Your task to perform on an android device: empty trash in the gmail app Image 0: 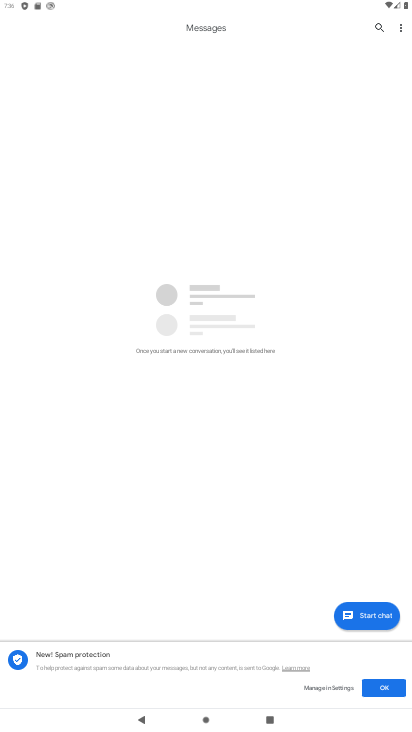
Step 0: press home button
Your task to perform on an android device: empty trash in the gmail app Image 1: 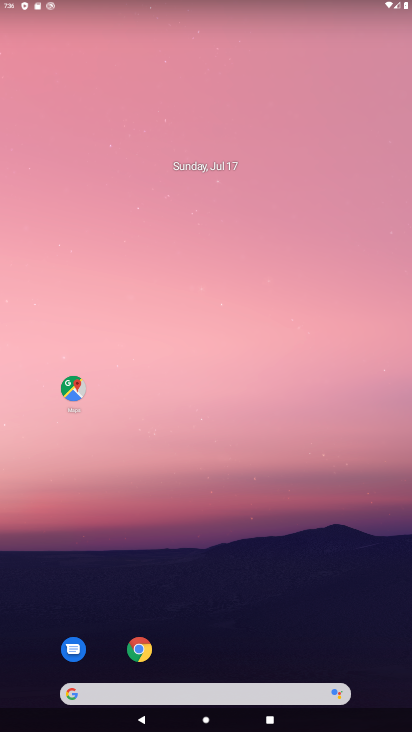
Step 1: drag from (323, 614) to (318, 143)
Your task to perform on an android device: empty trash in the gmail app Image 2: 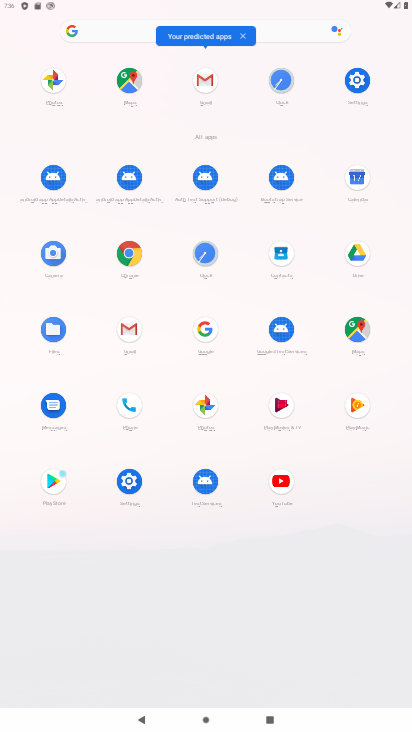
Step 2: click (202, 82)
Your task to perform on an android device: empty trash in the gmail app Image 3: 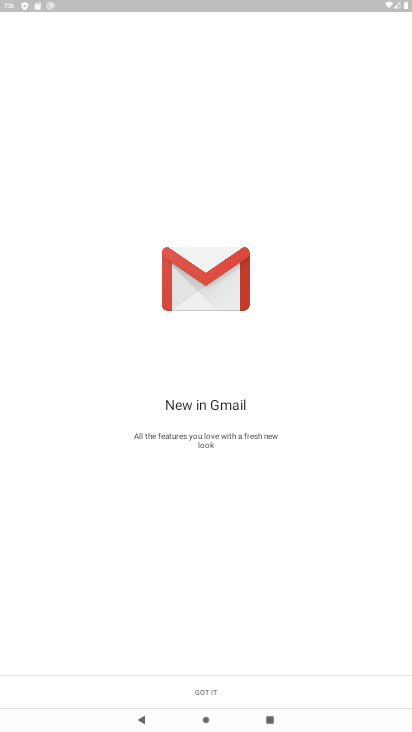
Step 3: click (235, 689)
Your task to perform on an android device: empty trash in the gmail app Image 4: 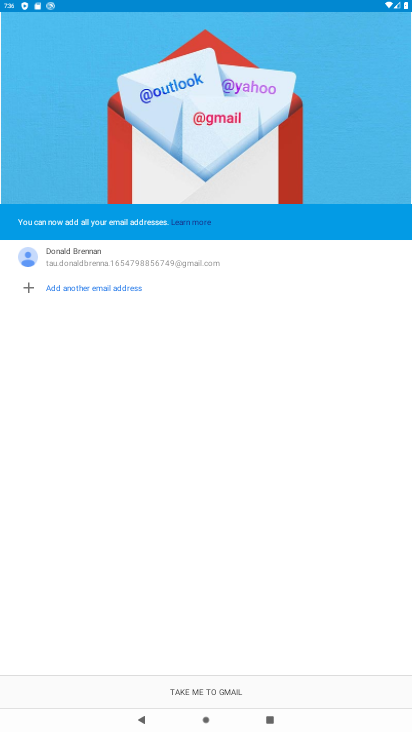
Step 4: click (235, 689)
Your task to perform on an android device: empty trash in the gmail app Image 5: 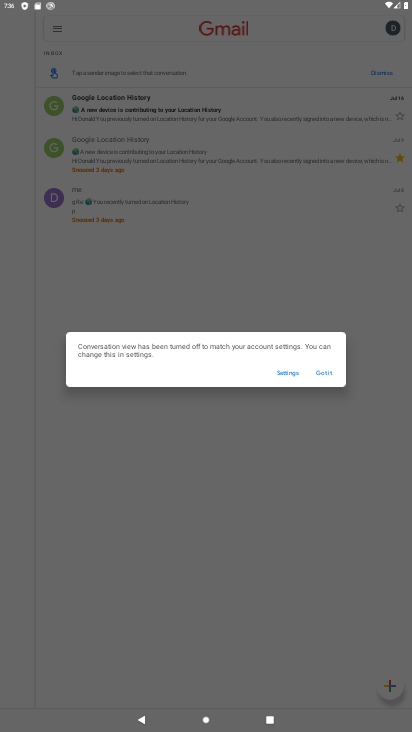
Step 5: click (324, 378)
Your task to perform on an android device: empty trash in the gmail app Image 6: 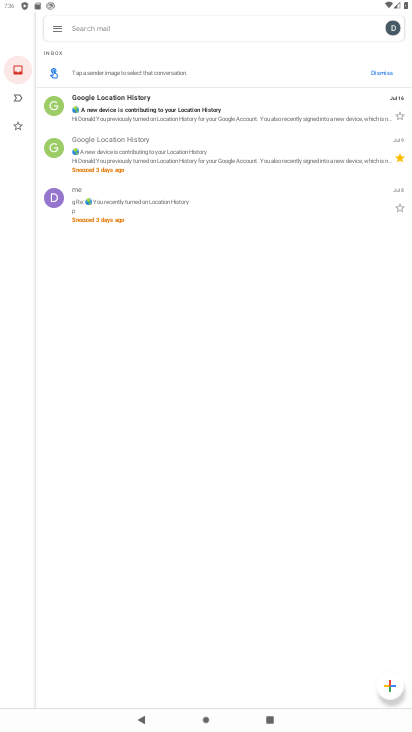
Step 6: click (60, 35)
Your task to perform on an android device: empty trash in the gmail app Image 7: 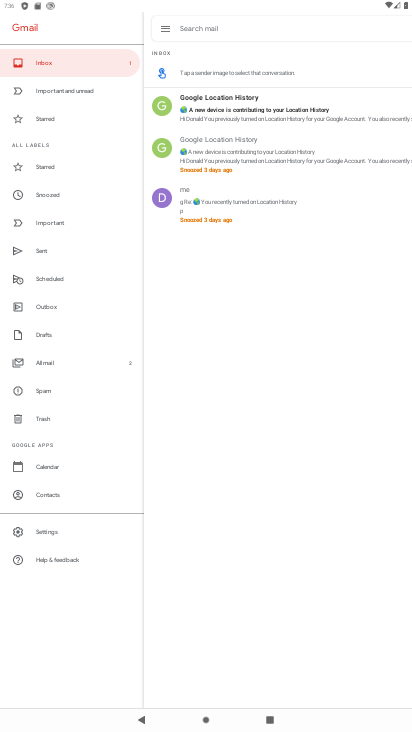
Step 7: click (57, 420)
Your task to perform on an android device: empty trash in the gmail app Image 8: 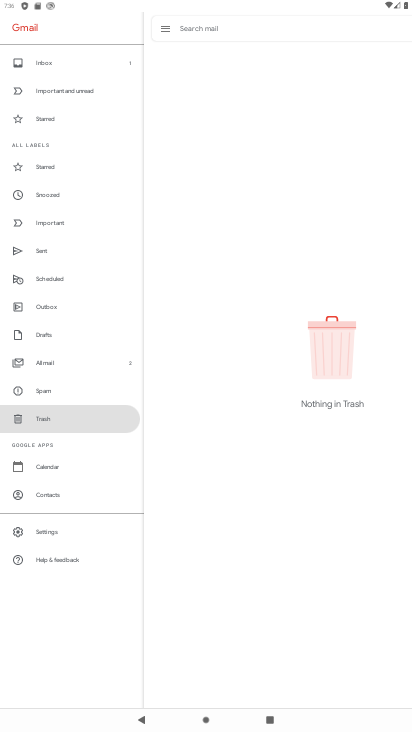
Step 8: task complete